Your task to perform on an android device: Turn on the flashlight Image 0: 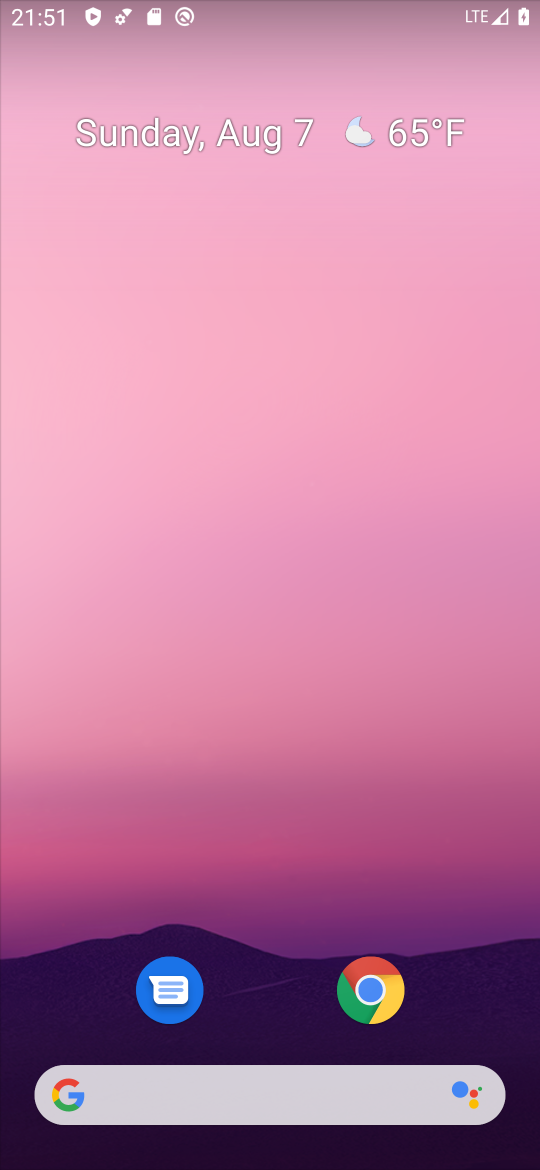
Step 0: drag from (268, 1010) to (308, 0)
Your task to perform on an android device: Turn on the flashlight Image 1: 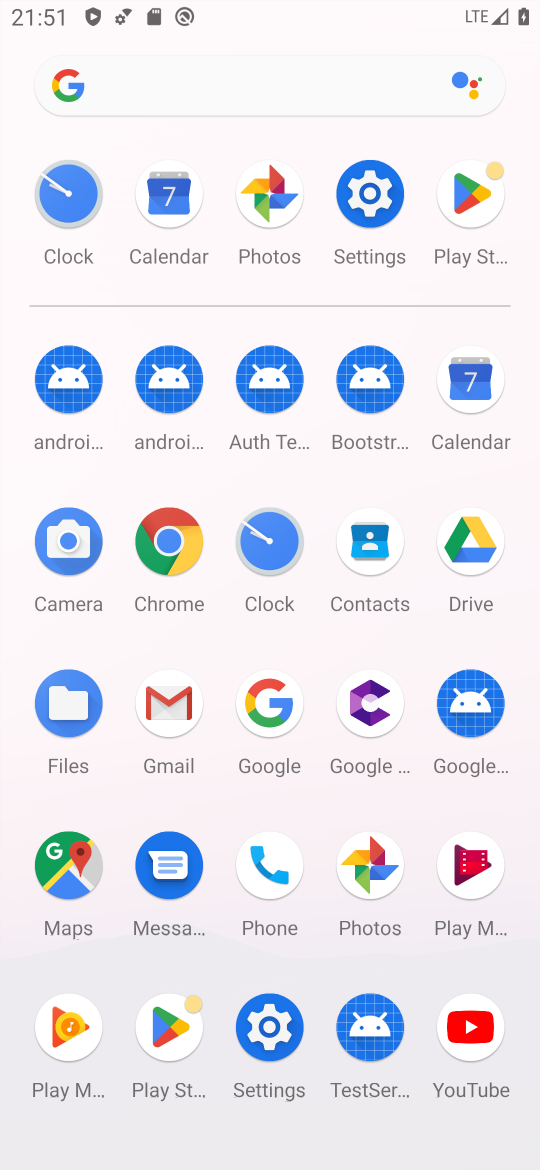
Step 1: click (372, 194)
Your task to perform on an android device: Turn on the flashlight Image 2: 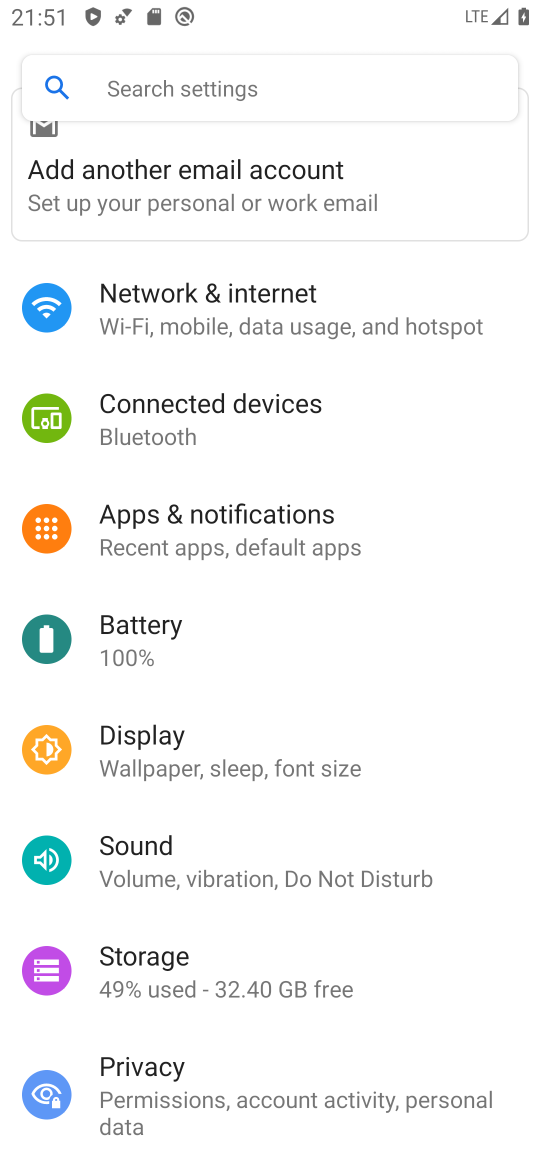
Step 2: click (370, 82)
Your task to perform on an android device: Turn on the flashlight Image 3: 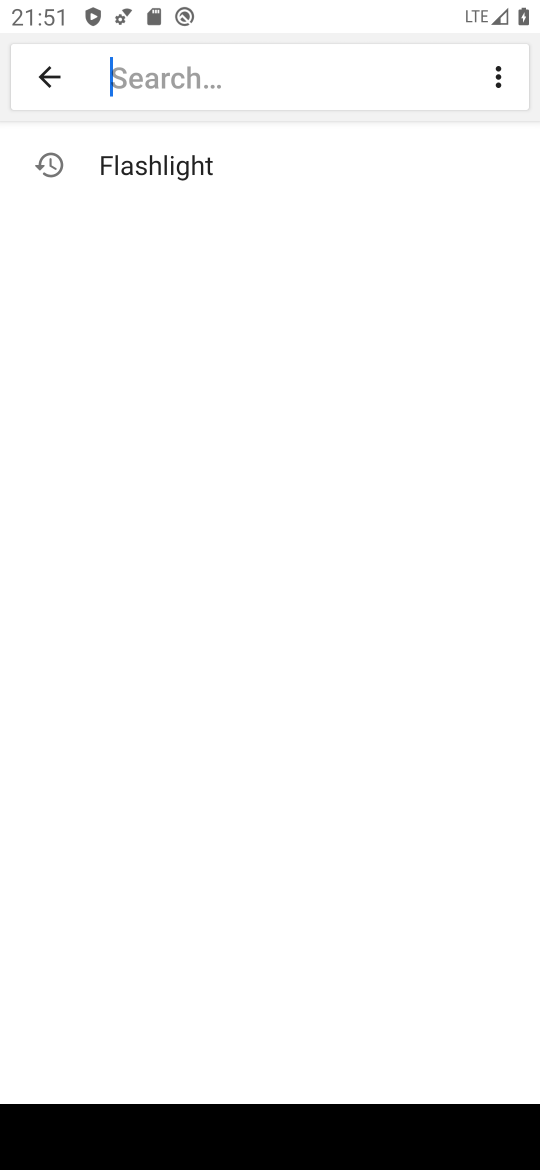
Step 3: click (164, 172)
Your task to perform on an android device: Turn on the flashlight Image 4: 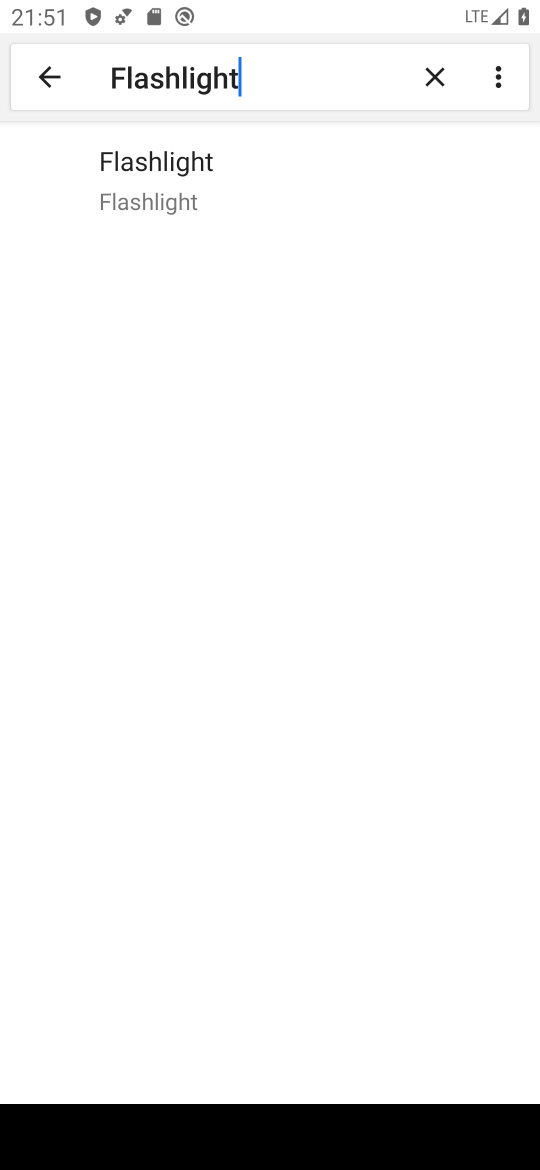
Step 4: click (183, 181)
Your task to perform on an android device: Turn on the flashlight Image 5: 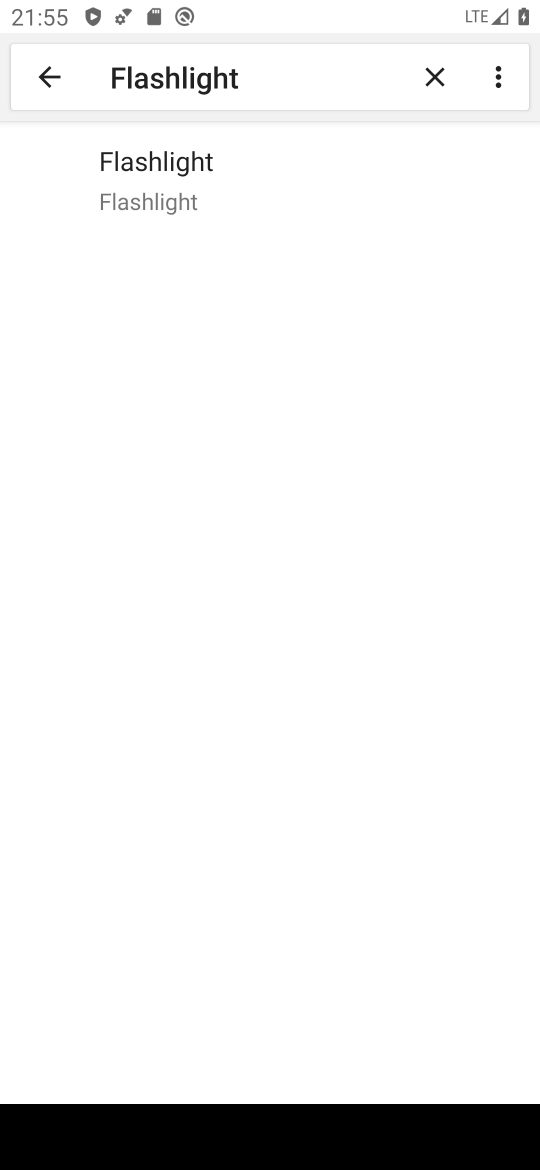
Step 5: task complete